Your task to perform on an android device: Empty the shopping cart on costco.com. Search for "logitech g910" on costco.com, select the first entry, add it to the cart, then select checkout. Image 0: 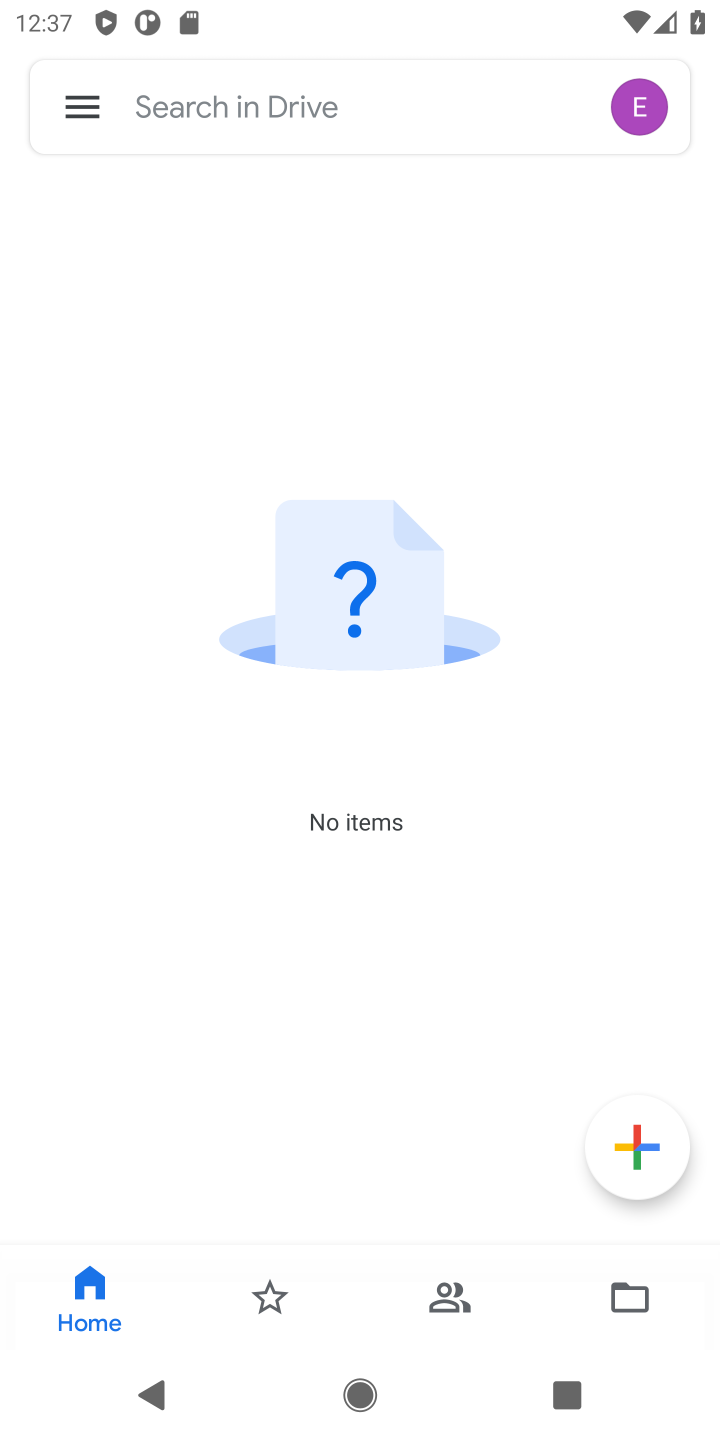
Step 0: press home button
Your task to perform on an android device: Empty the shopping cart on costco.com. Search for "logitech g910" on costco.com, select the first entry, add it to the cart, then select checkout. Image 1: 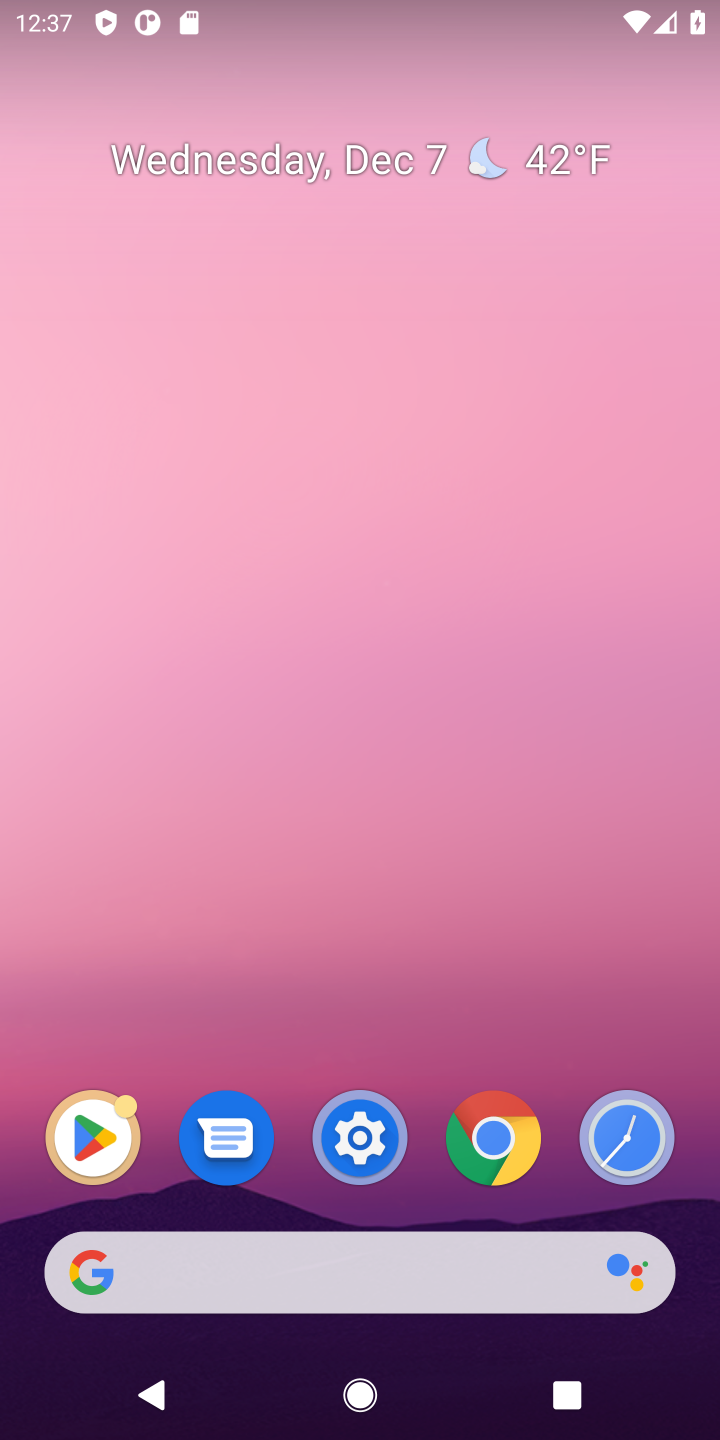
Step 1: click (236, 1312)
Your task to perform on an android device: Empty the shopping cart on costco.com. Search for "logitech g910" on costco.com, select the first entry, add it to the cart, then select checkout. Image 2: 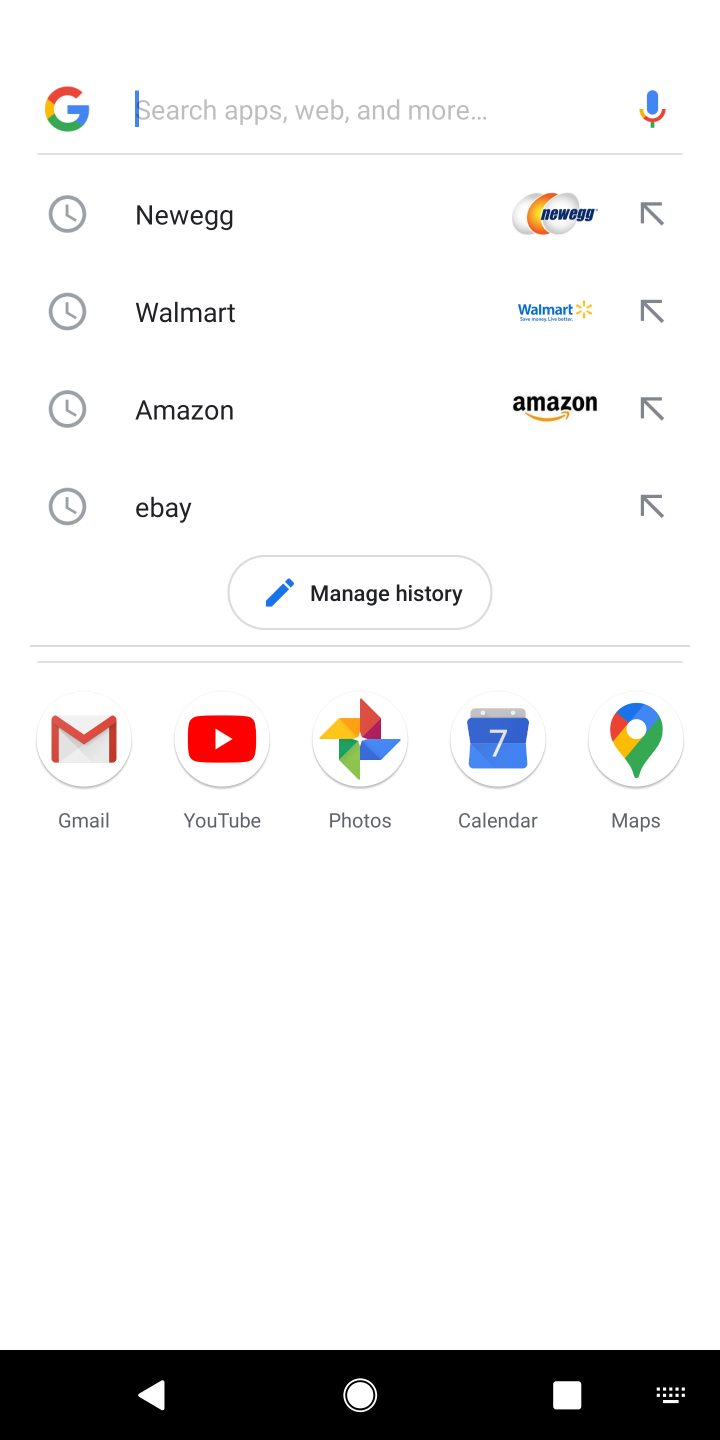
Step 2: type "costco"
Your task to perform on an android device: Empty the shopping cart on costco.com. Search for "logitech g910" on costco.com, select the first entry, add it to the cart, then select checkout. Image 3: 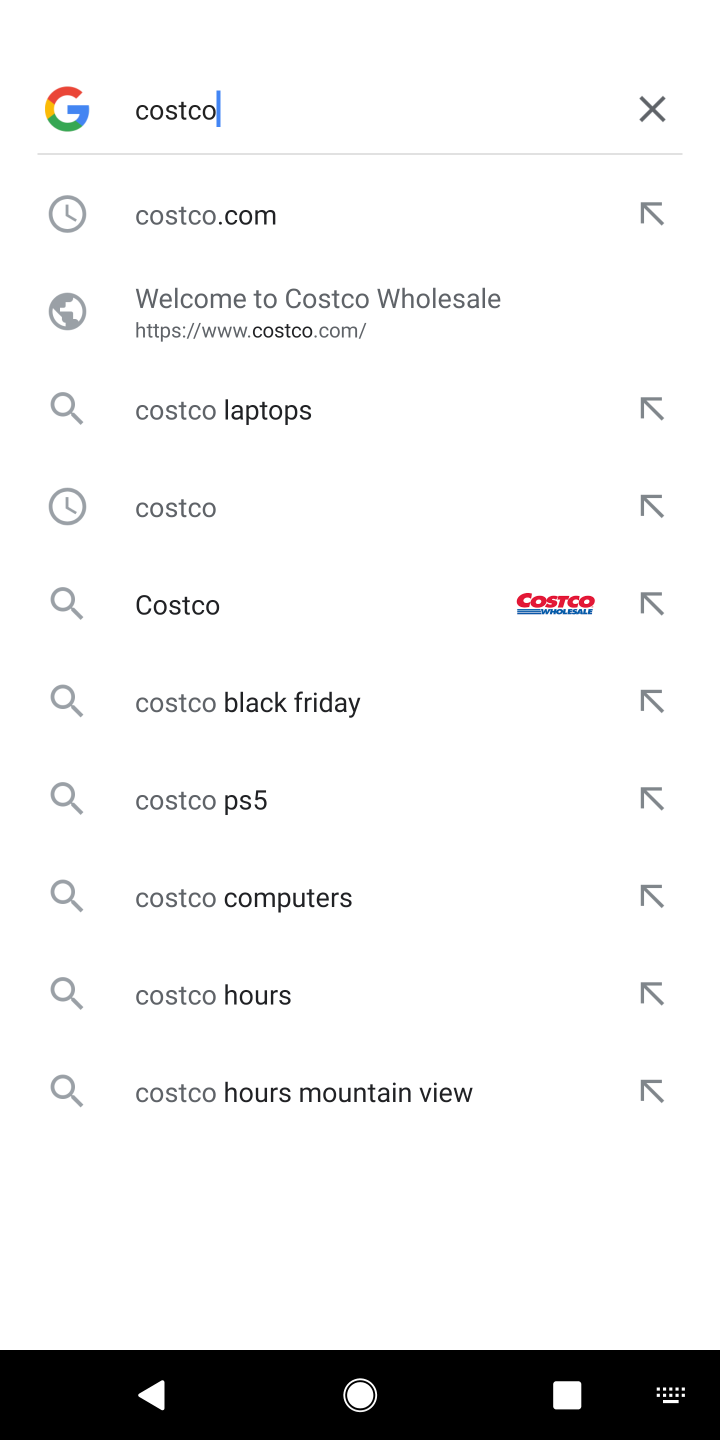
Step 3: click (266, 599)
Your task to perform on an android device: Empty the shopping cart on costco.com. Search for "logitech g910" on costco.com, select the first entry, add it to the cart, then select checkout. Image 4: 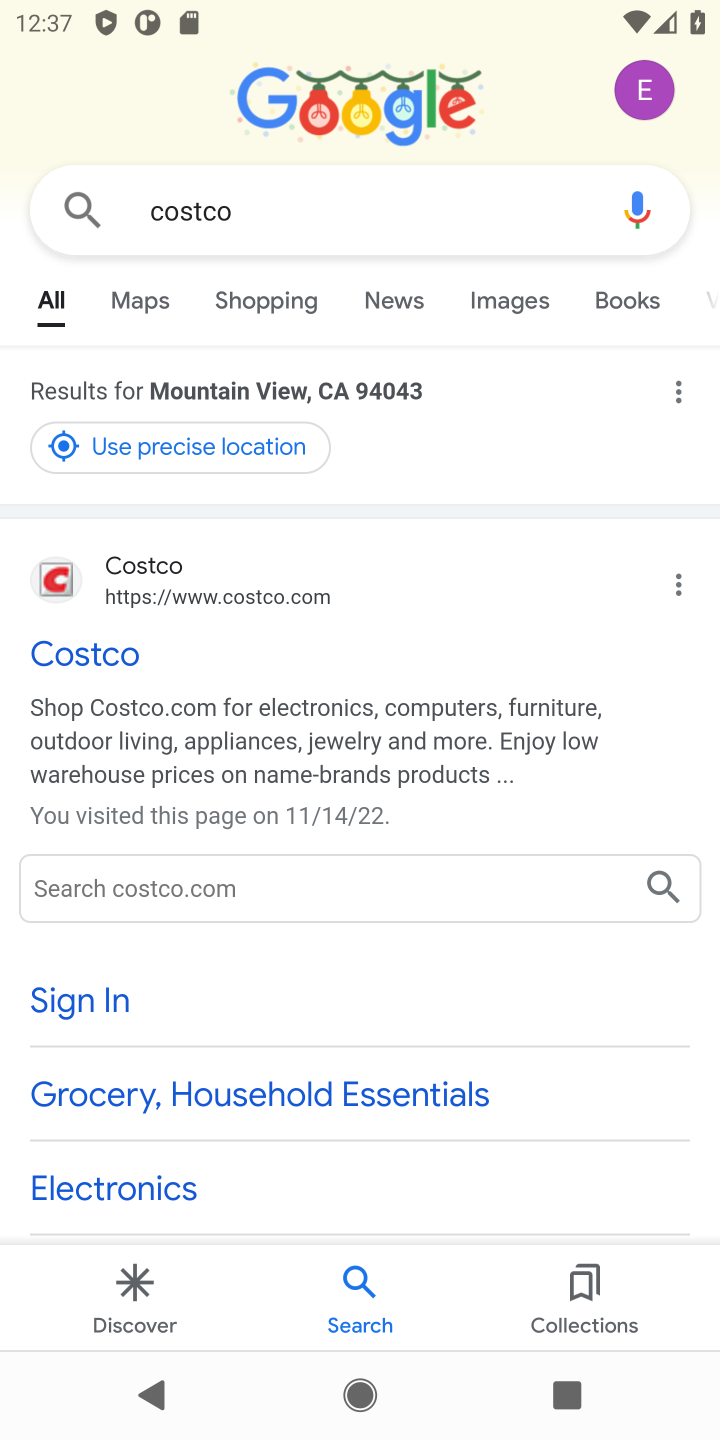
Step 4: click (62, 630)
Your task to perform on an android device: Empty the shopping cart on costco.com. Search for "logitech g910" on costco.com, select the first entry, add it to the cart, then select checkout. Image 5: 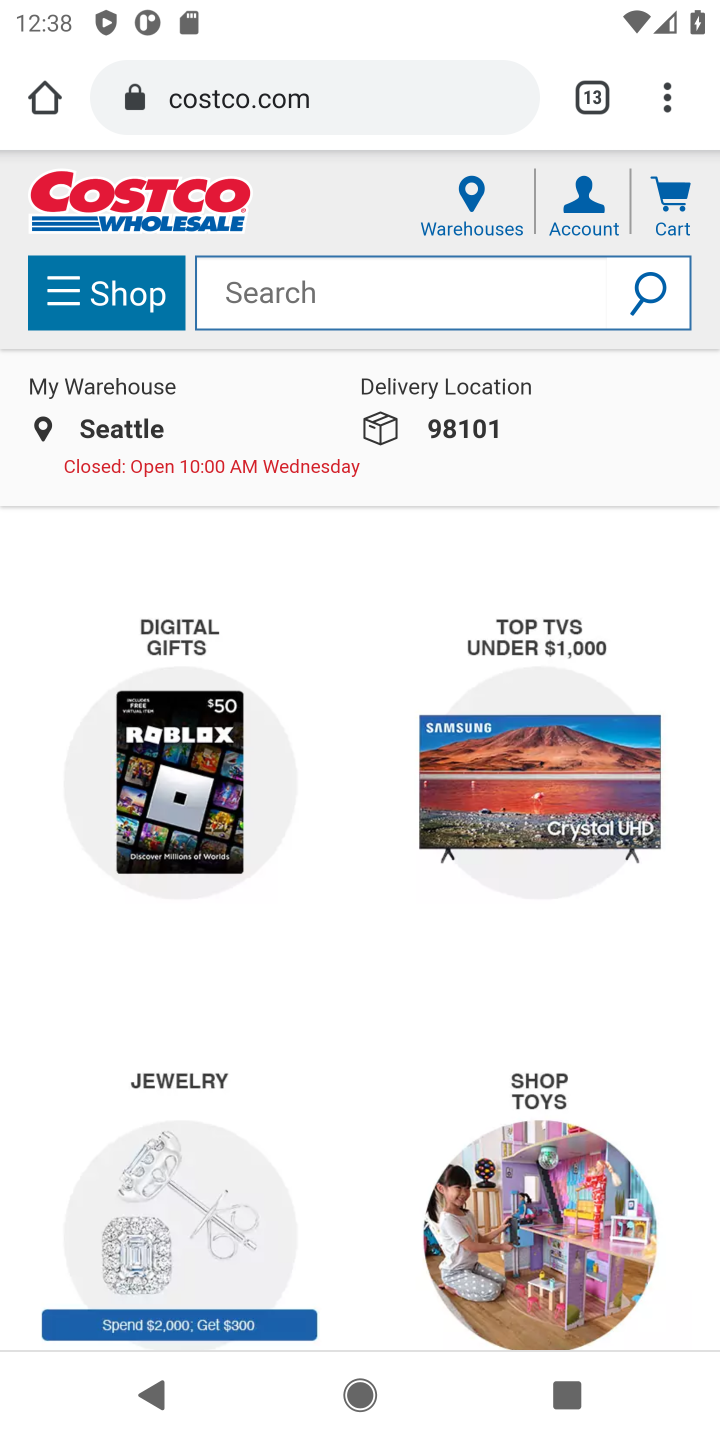
Step 5: click (407, 282)
Your task to perform on an android device: Empty the shopping cart on costco.com. Search for "logitech g910" on costco.com, select the first entry, add it to the cart, then select checkout. Image 6: 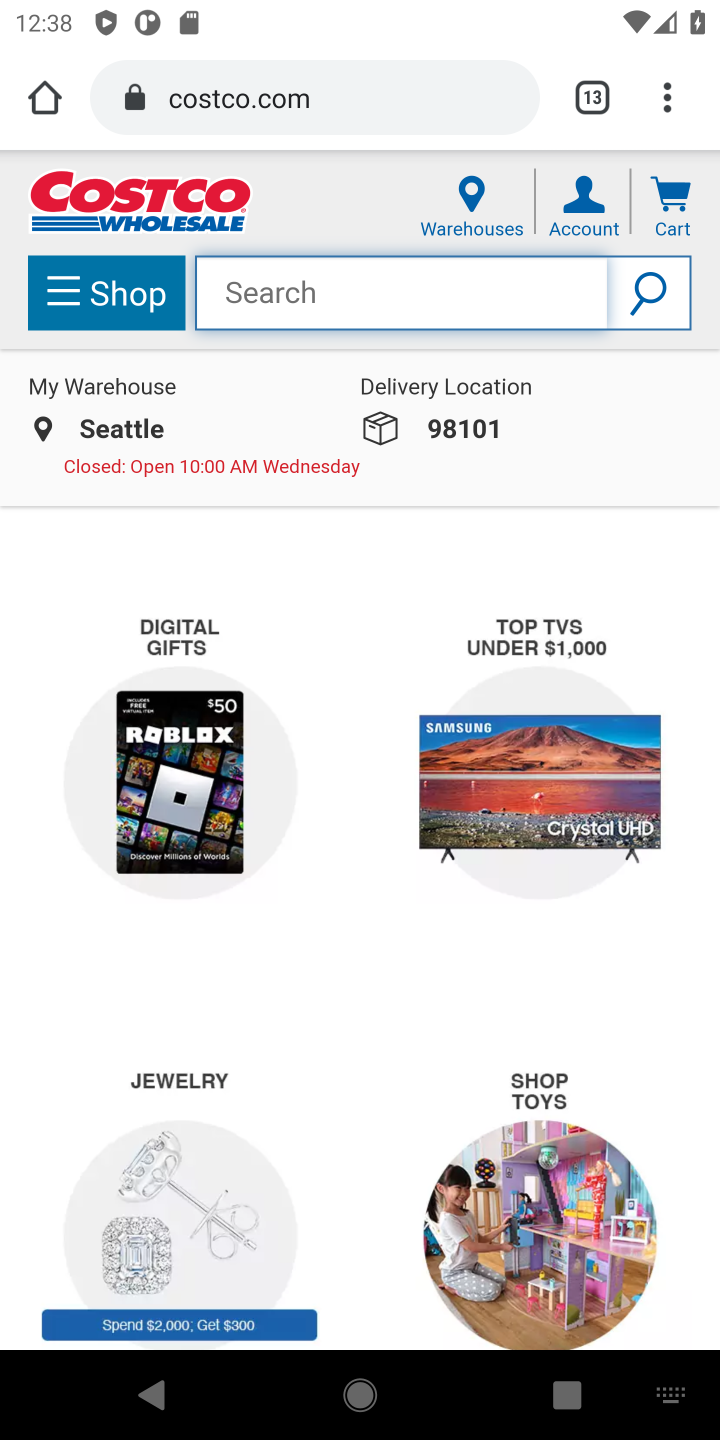
Step 6: type "logitech g910"
Your task to perform on an android device: Empty the shopping cart on costco.com. Search for "logitech g910" on costco.com, select the first entry, add it to the cart, then select checkout. Image 7: 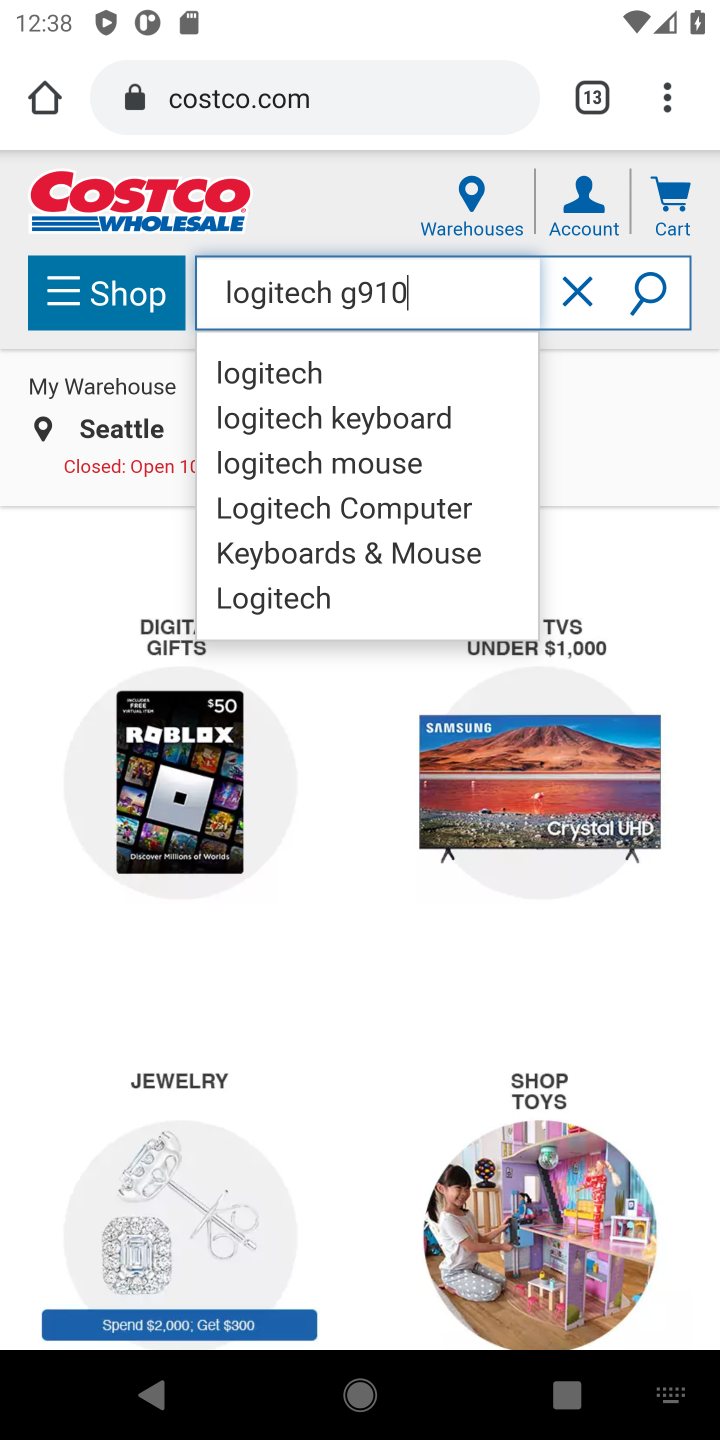
Step 7: click (641, 291)
Your task to perform on an android device: Empty the shopping cart on costco.com. Search for "logitech g910" on costco.com, select the first entry, add it to the cart, then select checkout. Image 8: 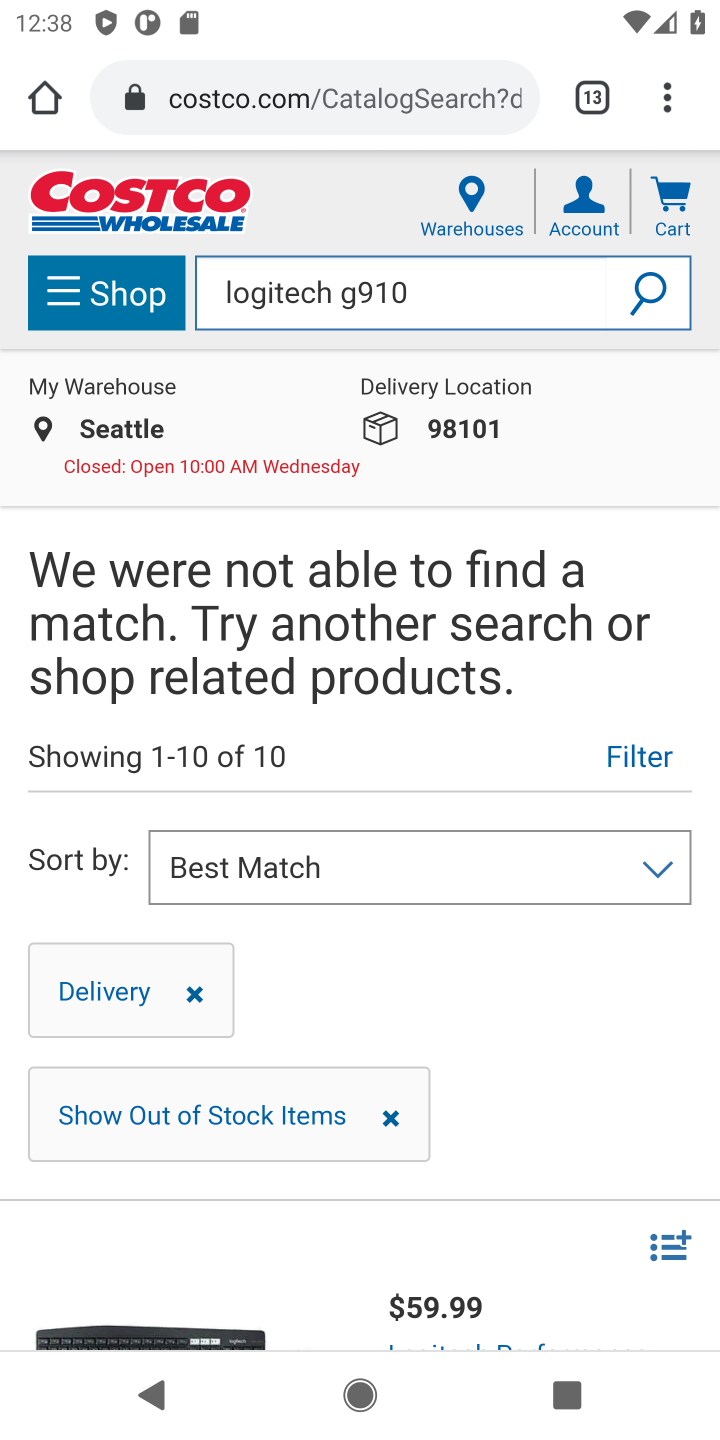
Step 8: drag from (613, 1065) to (367, 167)
Your task to perform on an android device: Empty the shopping cart on costco.com. Search for "logitech g910" on costco.com, select the first entry, add it to the cart, then select checkout. Image 9: 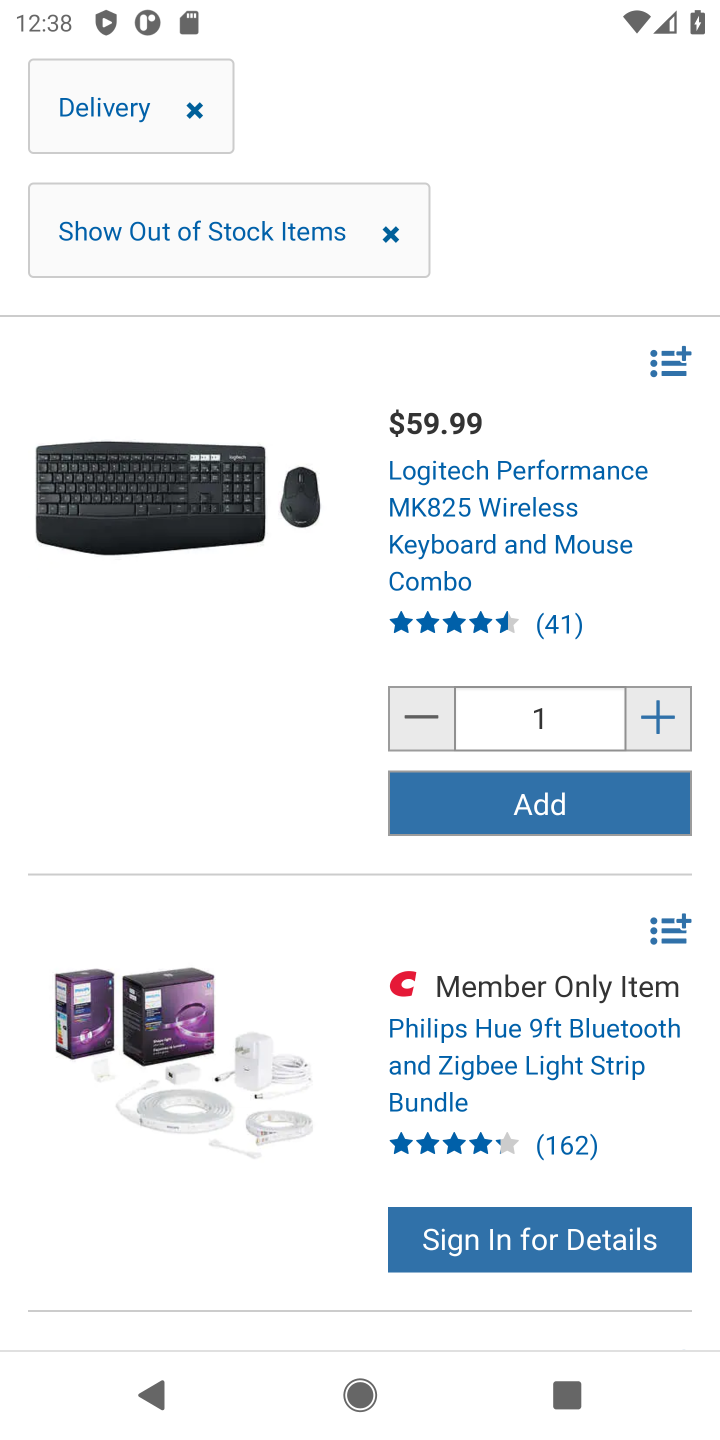
Step 9: click (509, 818)
Your task to perform on an android device: Empty the shopping cart on costco.com. Search for "logitech g910" on costco.com, select the first entry, add it to the cart, then select checkout. Image 10: 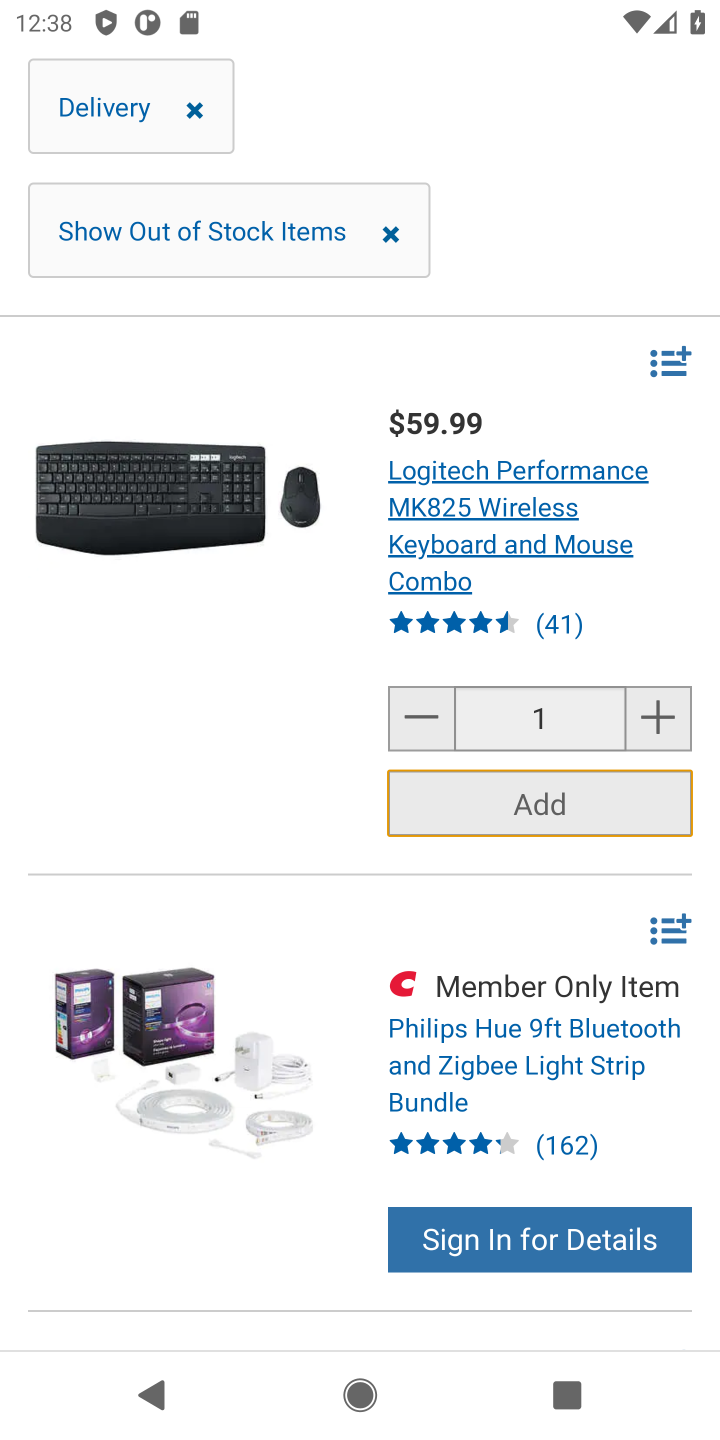
Step 10: task complete